Your task to perform on an android device: Open Amazon Image 0: 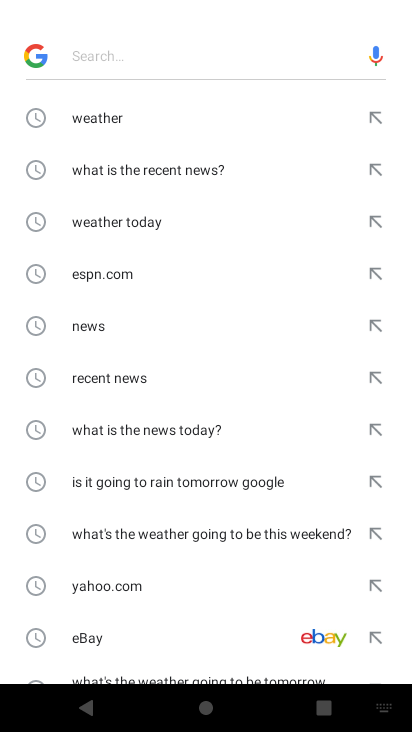
Step 0: press home button
Your task to perform on an android device: Open Amazon Image 1: 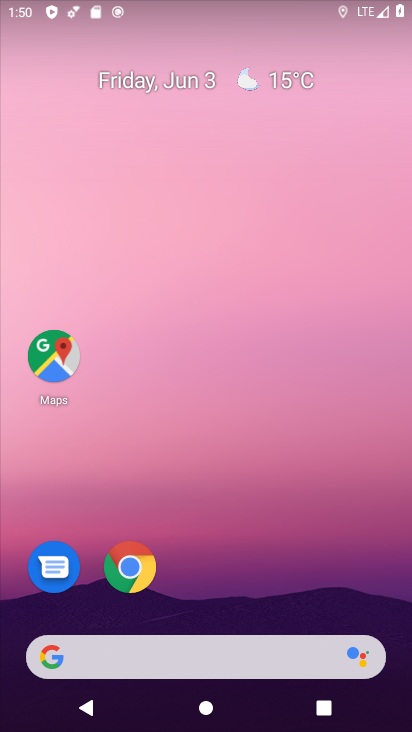
Step 1: click (128, 574)
Your task to perform on an android device: Open Amazon Image 2: 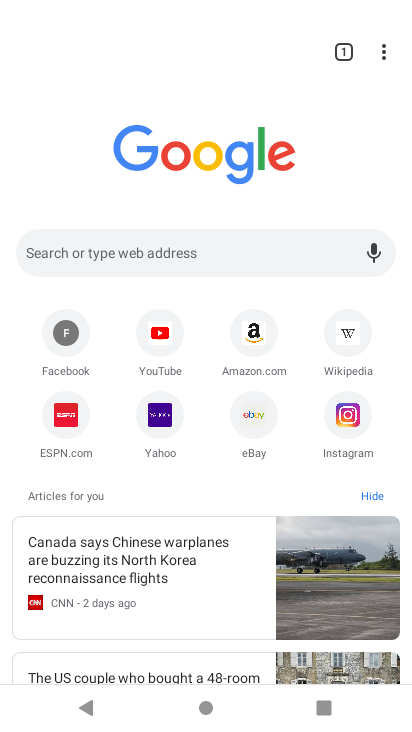
Step 2: click (258, 327)
Your task to perform on an android device: Open Amazon Image 3: 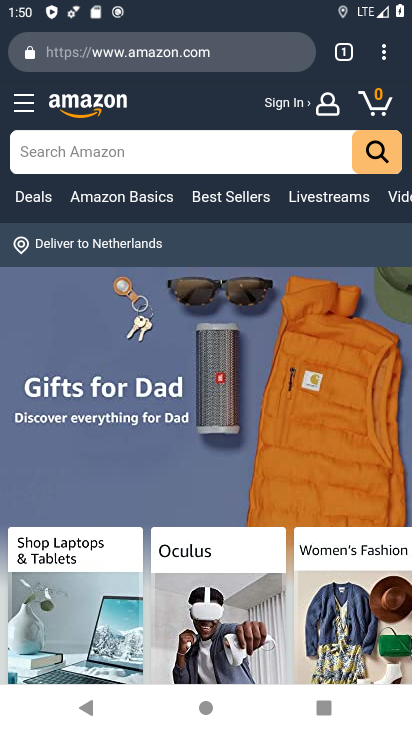
Step 3: task complete